Your task to perform on an android device: star an email in the gmail app Image 0: 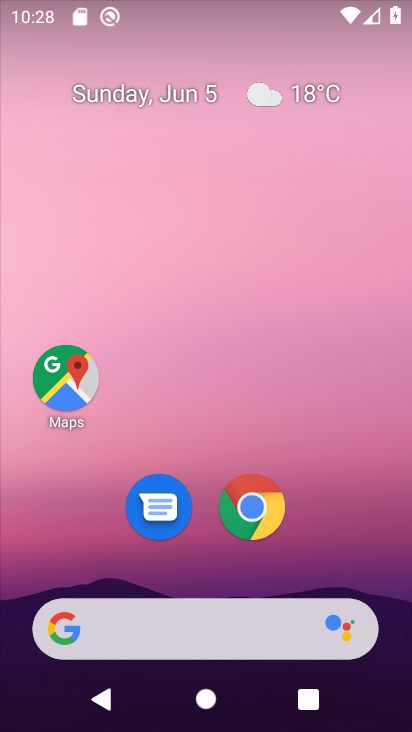
Step 0: drag from (219, 580) to (310, 2)
Your task to perform on an android device: star an email in the gmail app Image 1: 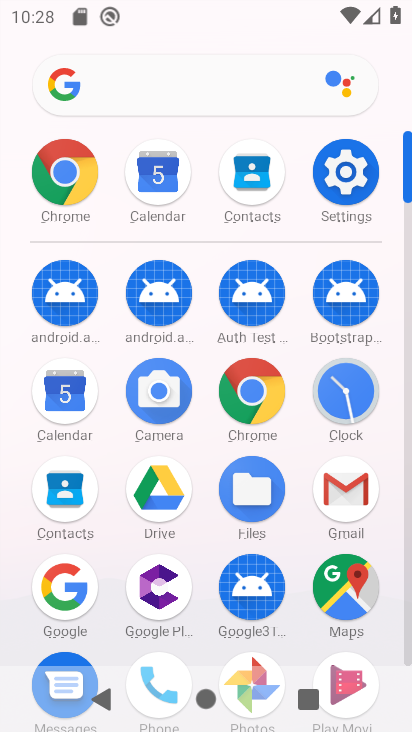
Step 1: click (338, 490)
Your task to perform on an android device: star an email in the gmail app Image 2: 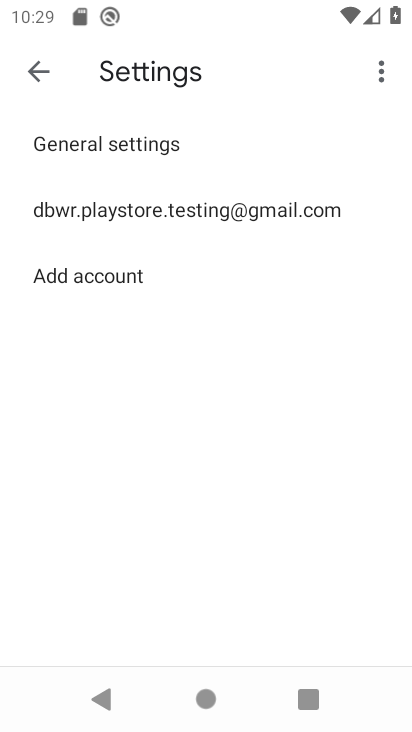
Step 2: click (40, 62)
Your task to perform on an android device: star an email in the gmail app Image 3: 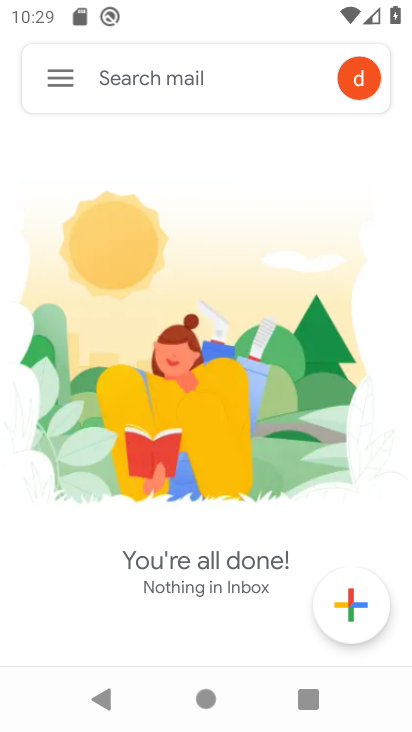
Step 3: click (66, 86)
Your task to perform on an android device: star an email in the gmail app Image 4: 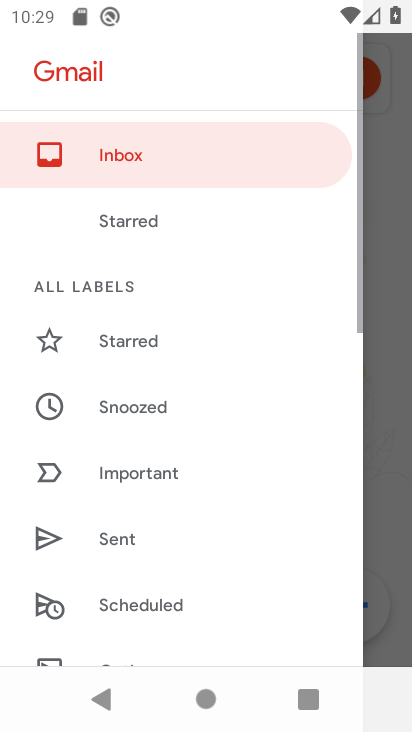
Step 4: drag from (142, 518) to (182, 256)
Your task to perform on an android device: star an email in the gmail app Image 5: 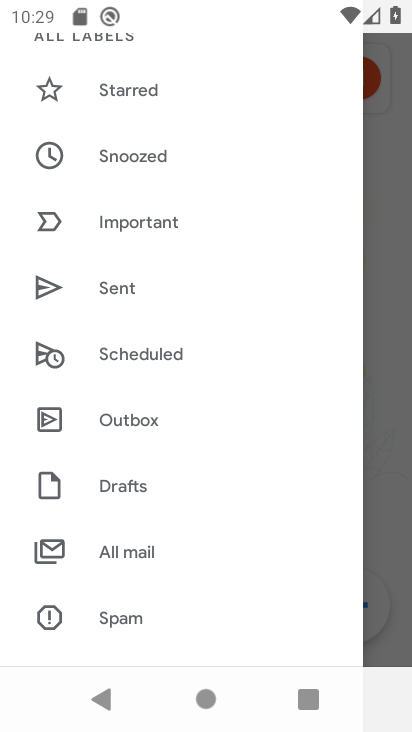
Step 5: click (159, 548)
Your task to perform on an android device: star an email in the gmail app Image 6: 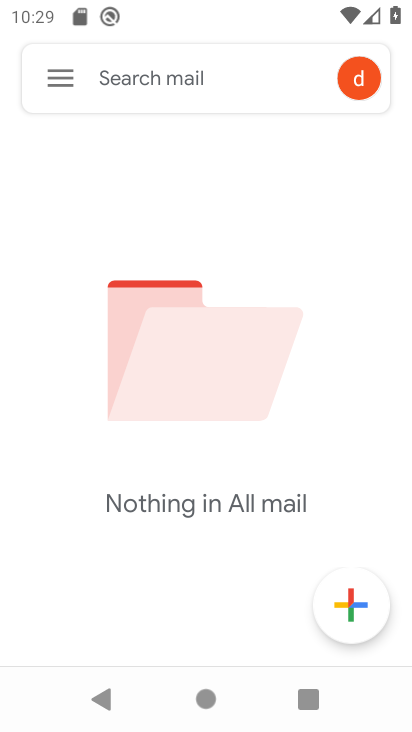
Step 6: task complete